Your task to perform on an android device: Open Yahoo.com Image 0: 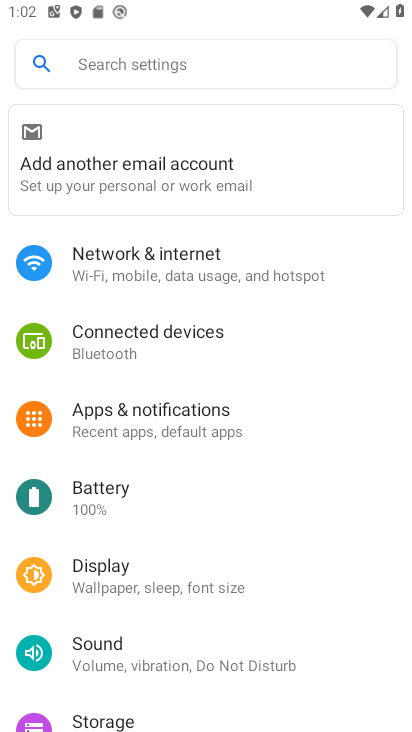
Step 0: press back button
Your task to perform on an android device: Open Yahoo.com Image 1: 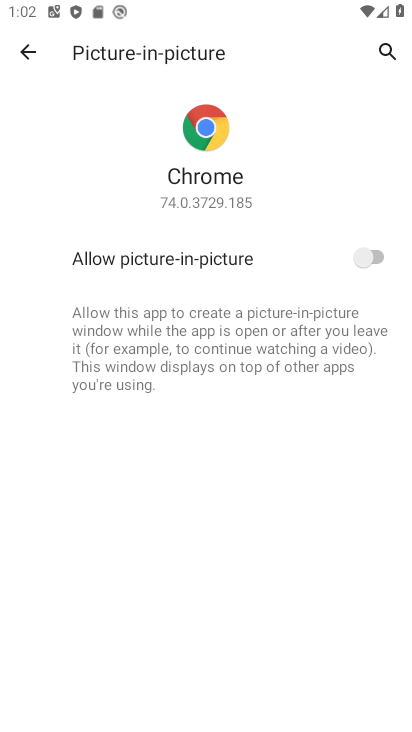
Step 1: press back button
Your task to perform on an android device: Open Yahoo.com Image 2: 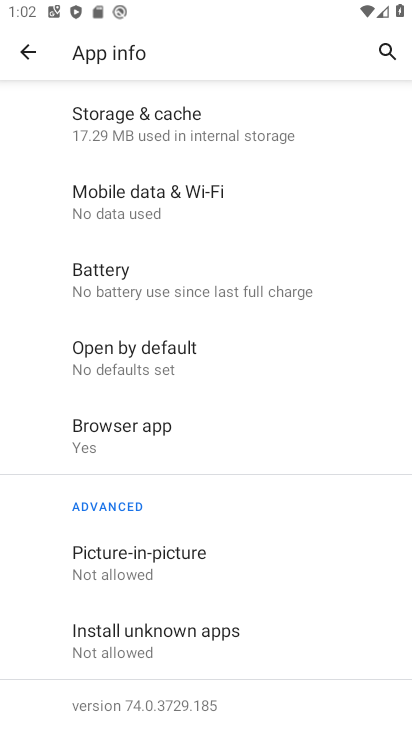
Step 2: press back button
Your task to perform on an android device: Open Yahoo.com Image 3: 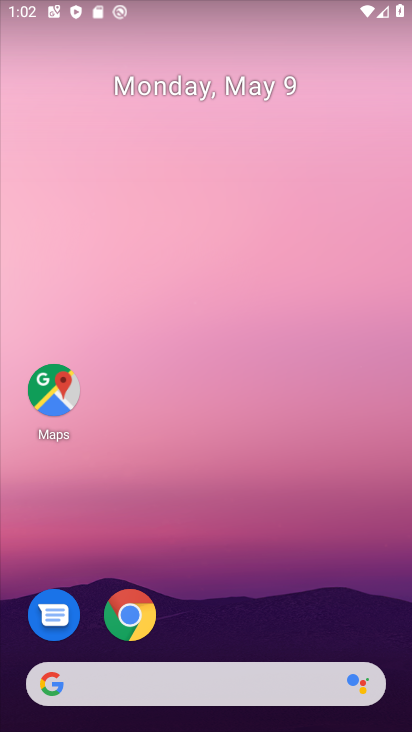
Step 3: click (128, 616)
Your task to perform on an android device: Open Yahoo.com Image 4: 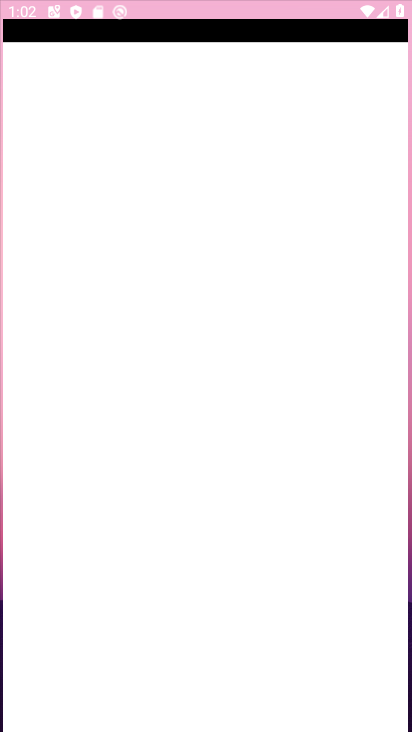
Step 4: click (128, 616)
Your task to perform on an android device: Open Yahoo.com Image 5: 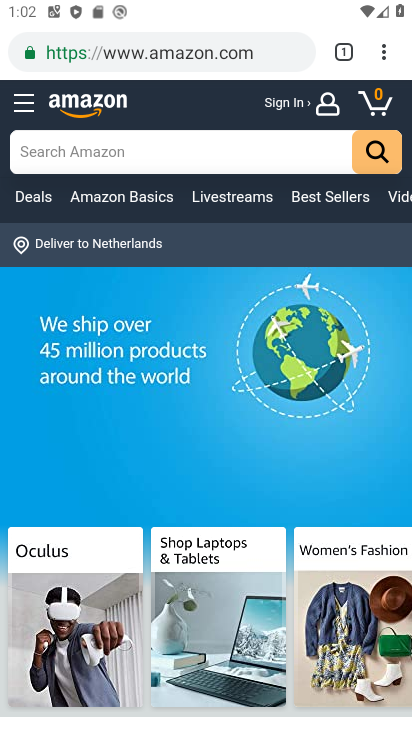
Step 5: click (266, 54)
Your task to perform on an android device: Open Yahoo.com Image 6: 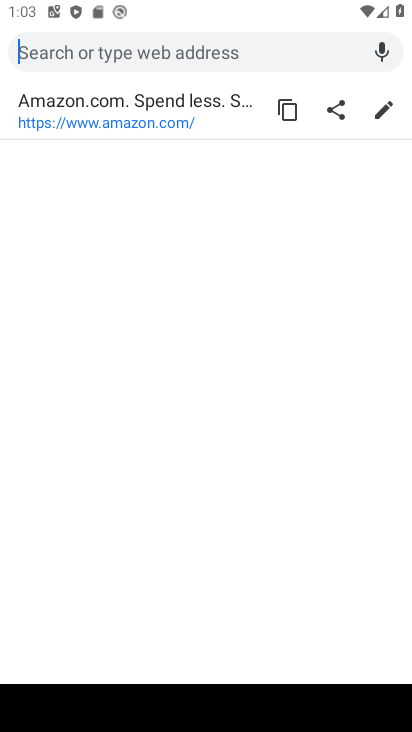
Step 6: type "Yahoo.com"
Your task to perform on an android device: Open Yahoo.com Image 7: 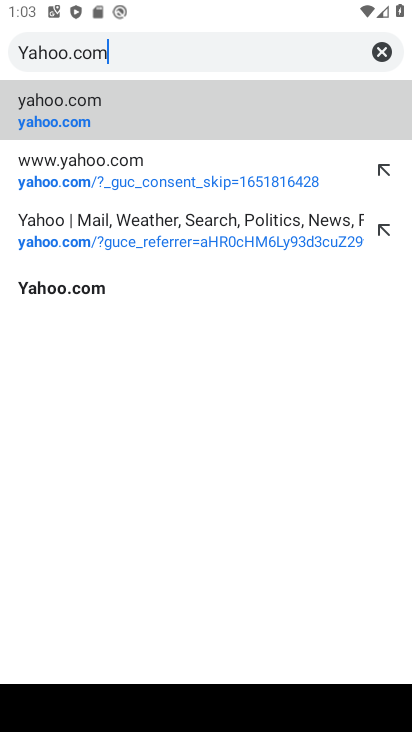
Step 7: type ""
Your task to perform on an android device: Open Yahoo.com Image 8: 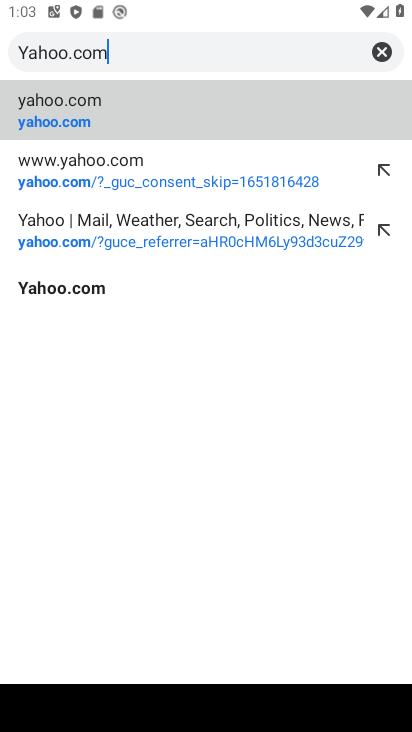
Step 8: click (58, 294)
Your task to perform on an android device: Open Yahoo.com Image 9: 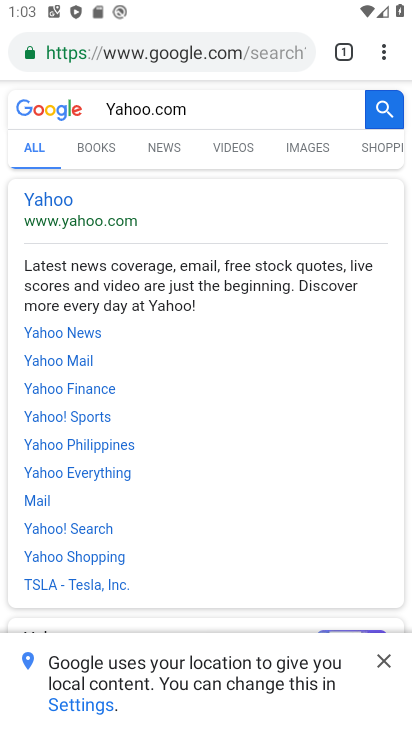
Step 9: click (56, 214)
Your task to perform on an android device: Open Yahoo.com Image 10: 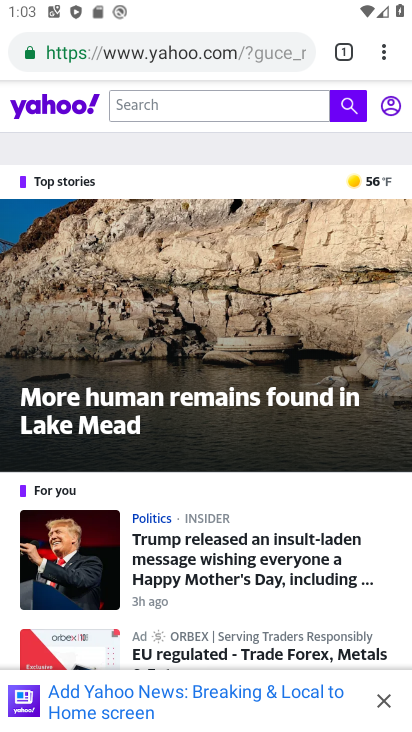
Step 10: task complete